Your task to perform on an android device: Open battery settings Image 0: 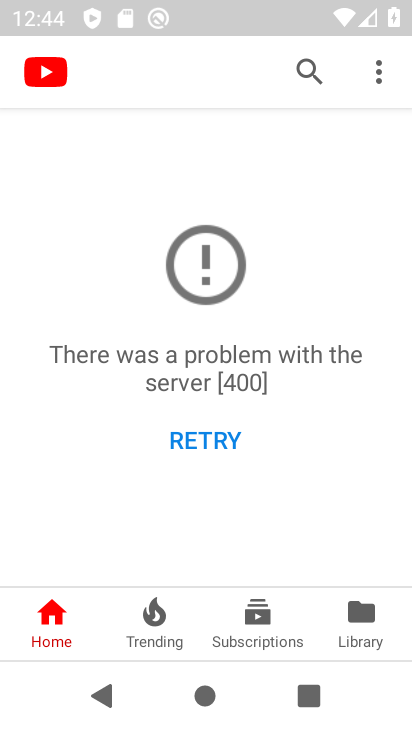
Step 0: press home button
Your task to perform on an android device: Open battery settings Image 1: 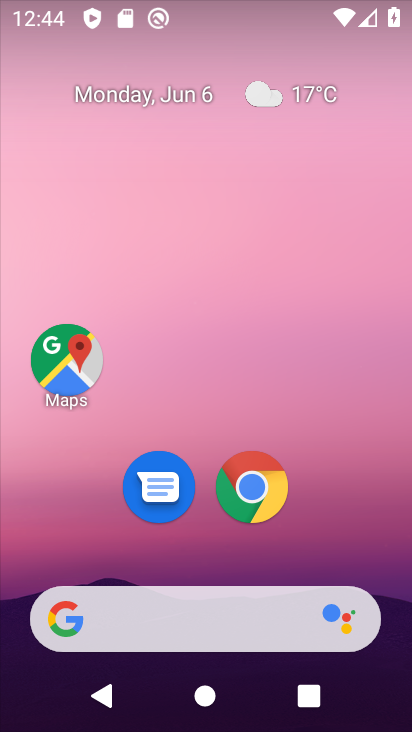
Step 1: drag from (357, 487) to (236, 67)
Your task to perform on an android device: Open battery settings Image 2: 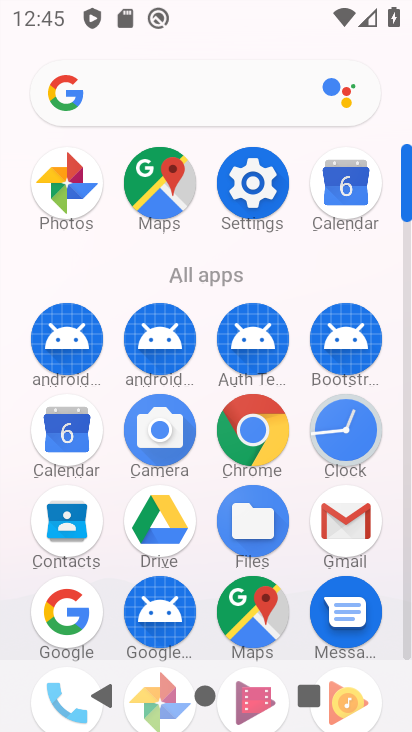
Step 2: click (252, 182)
Your task to perform on an android device: Open battery settings Image 3: 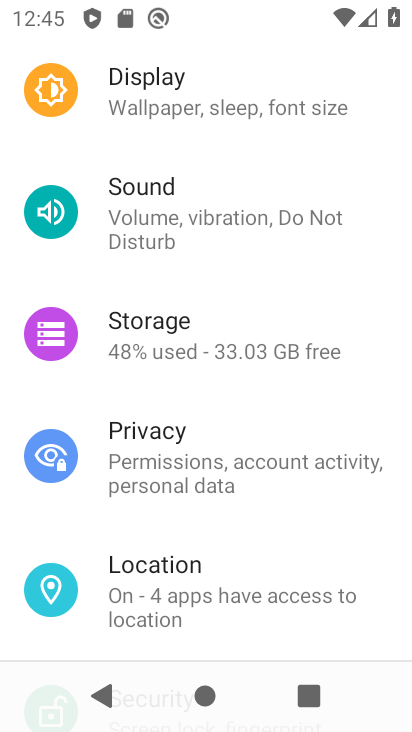
Step 3: drag from (225, 210) to (243, 322)
Your task to perform on an android device: Open battery settings Image 4: 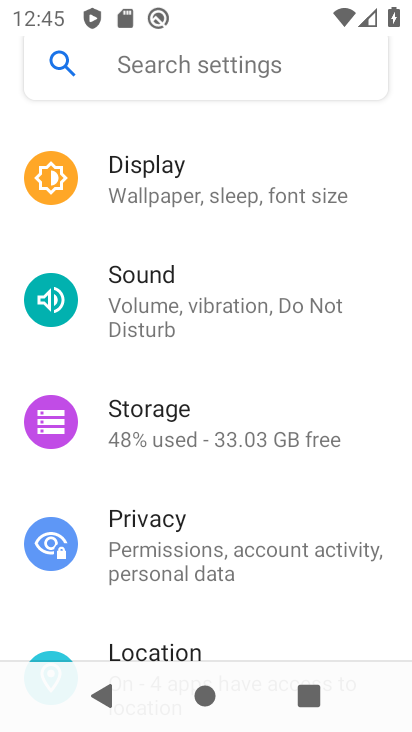
Step 4: drag from (245, 154) to (259, 310)
Your task to perform on an android device: Open battery settings Image 5: 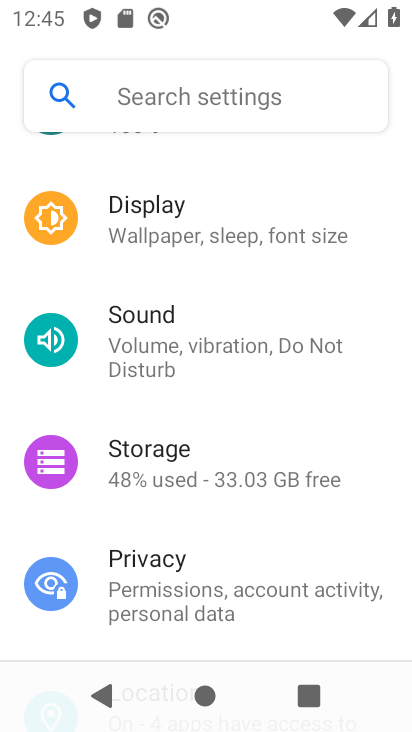
Step 5: drag from (250, 184) to (284, 367)
Your task to perform on an android device: Open battery settings Image 6: 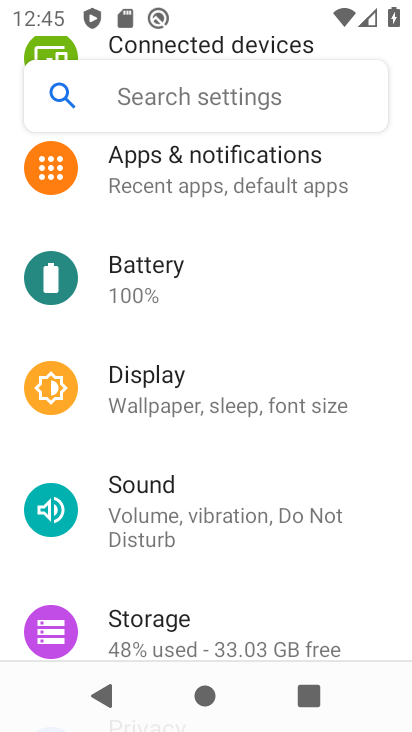
Step 6: click (166, 274)
Your task to perform on an android device: Open battery settings Image 7: 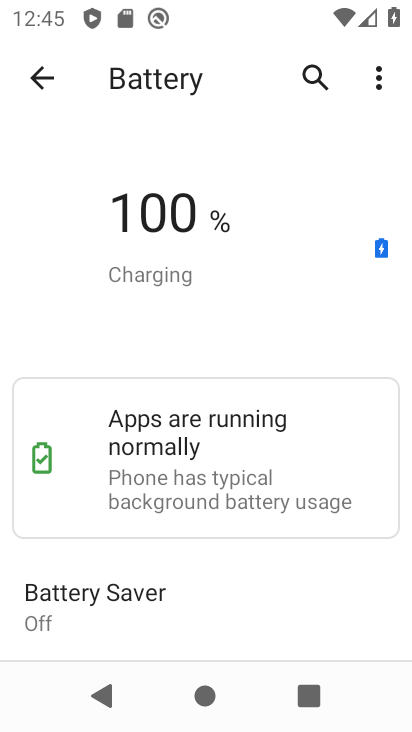
Step 7: task complete